Your task to perform on an android device: open sync settings in chrome Image 0: 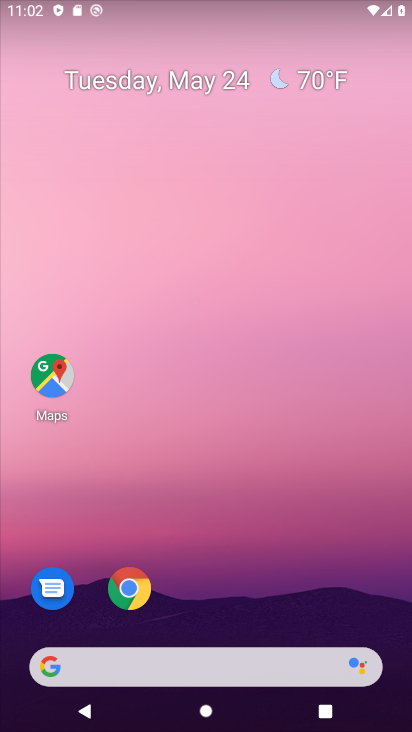
Step 0: click (127, 585)
Your task to perform on an android device: open sync settings in chrome Image 1: 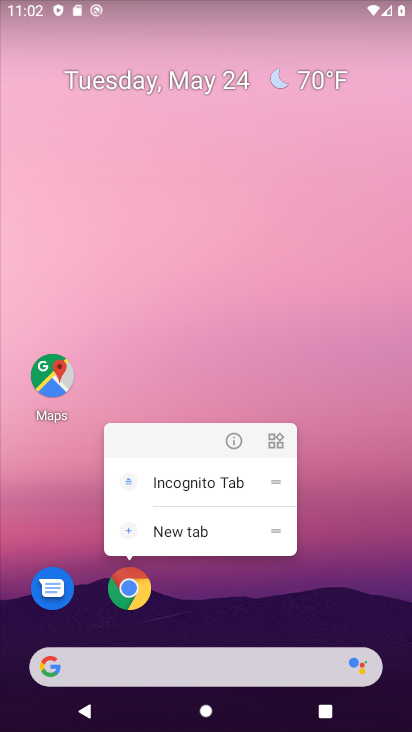
Step 1: click (127, 585)
Your task to perform on an android device: open sync settings in chrome Image 2: 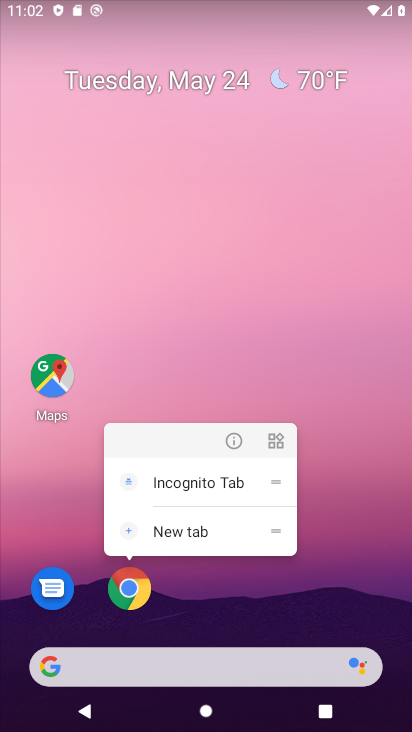
Step 2: click (127, 585)
Your task to perform on an android device: open sync settings in chrome Image 3: 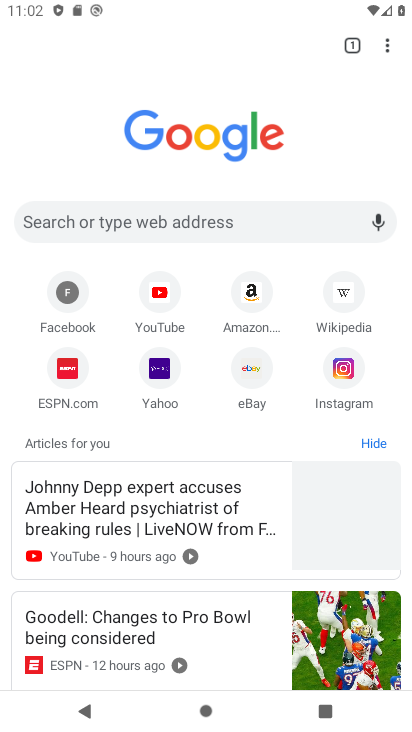
Step 3: click (388, 37)
Your task to perform on an android device: open sync settings in chrome Image 4: 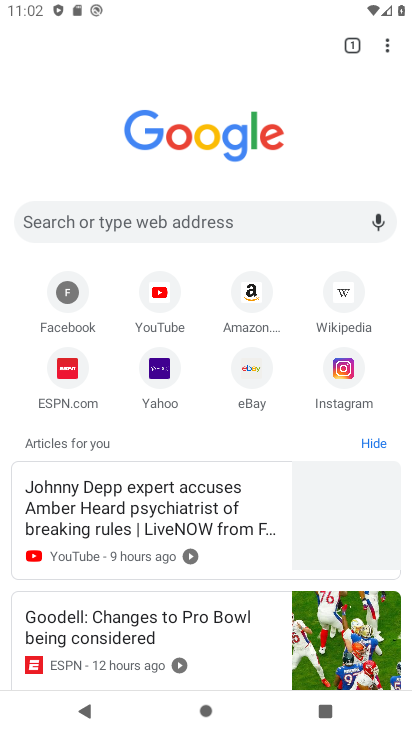
Step 4: click (386, 38)
Your task to perform on an android device: open sync settings in chrome Image 5: 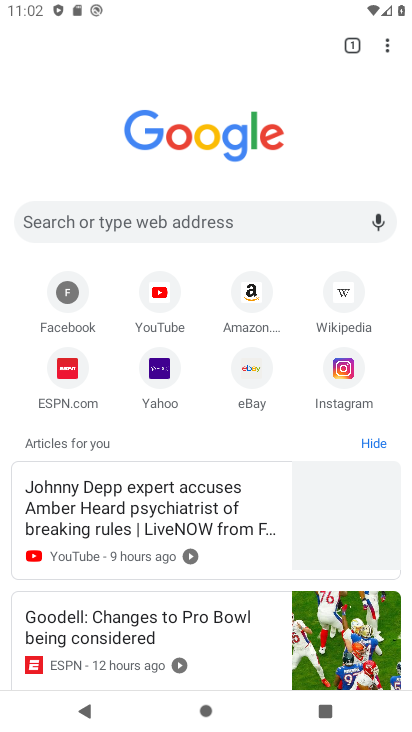
Step 5: click (388, 39)
Your task to perform on an android device: open sync settings in chrome Image 6: 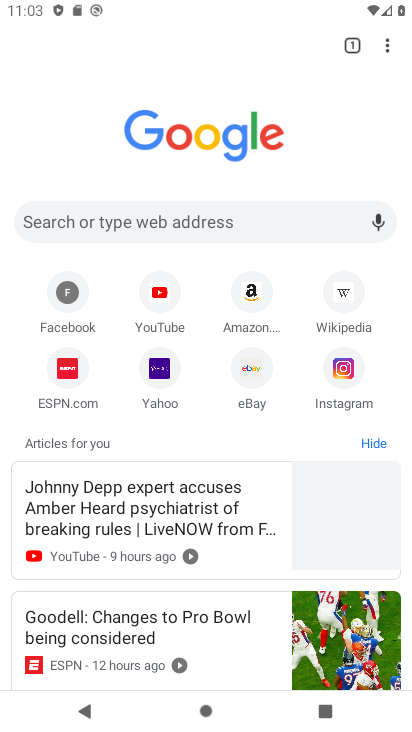
Step 6: click (386, 45)
Your task to perform on an android device: open sync settings in chrome Image 7: 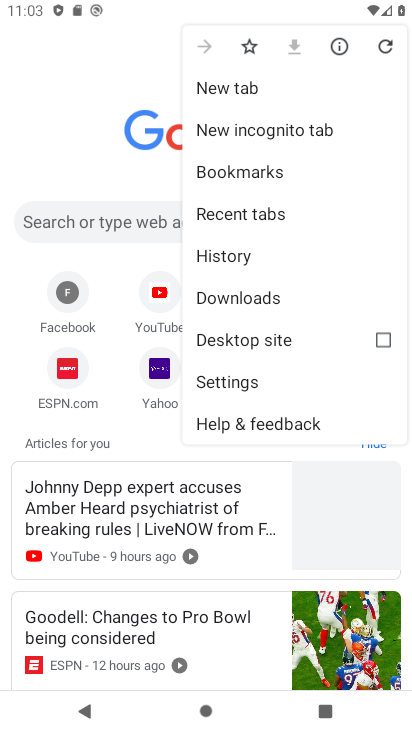
Step 7: click (268, 380)
Your task to perform on an android device: open sync settings in chrome Image 8: 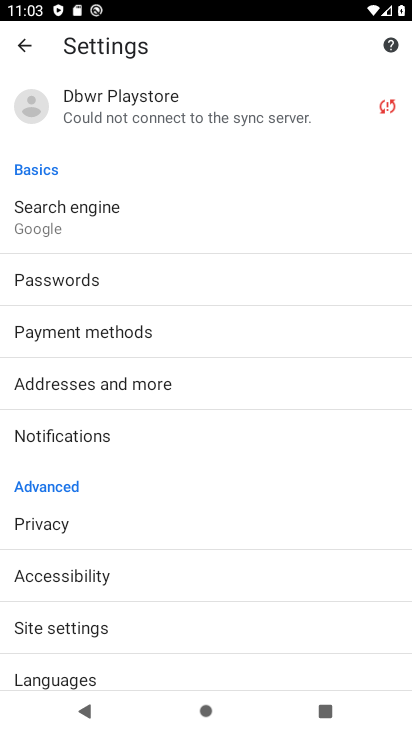
Step 8: drag from (166, 647) to (196, 213)
Your task to perform on an android device: open sync settings in chrome Image 9: 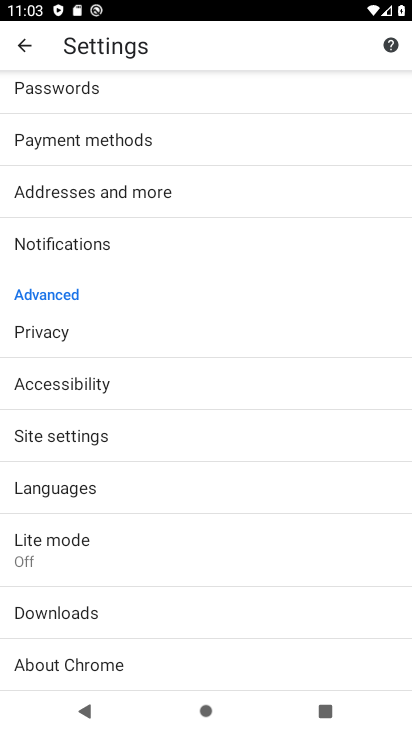
Step 9: drag from (194, 104) to (147, 690)
Your task to perform on an android device: open sync settings in chrome Image 10: 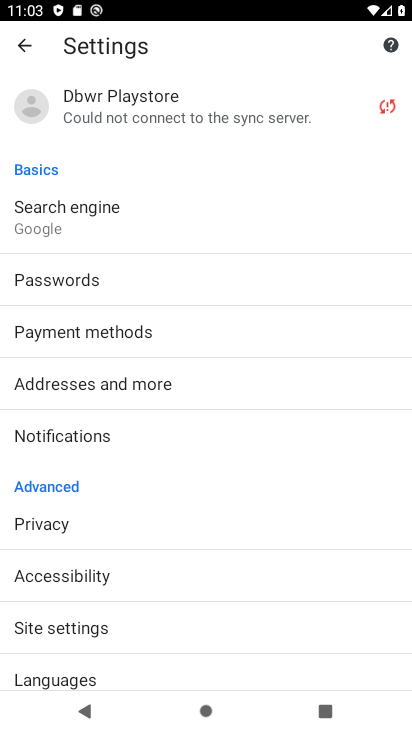
Step 10: click (189, 100)
Your task to perform on an android device: open sync settings in chrome Image 11: 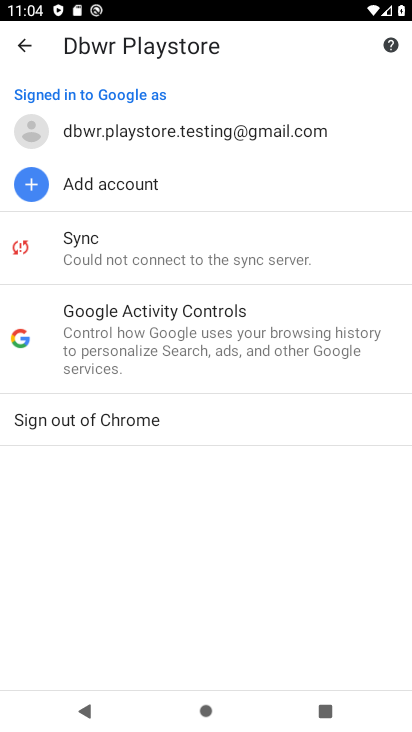
Step 11: click (164, 233)
Your task to perform on an android device: open sync settings in chrome Image 12: 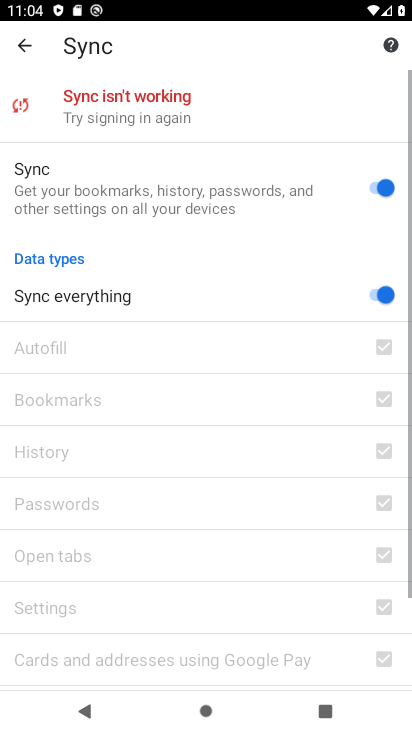
Step 12: task complete